Your task to perform on an android device: uninstall "DuckDuckGo Privacy Browser" Image 0: 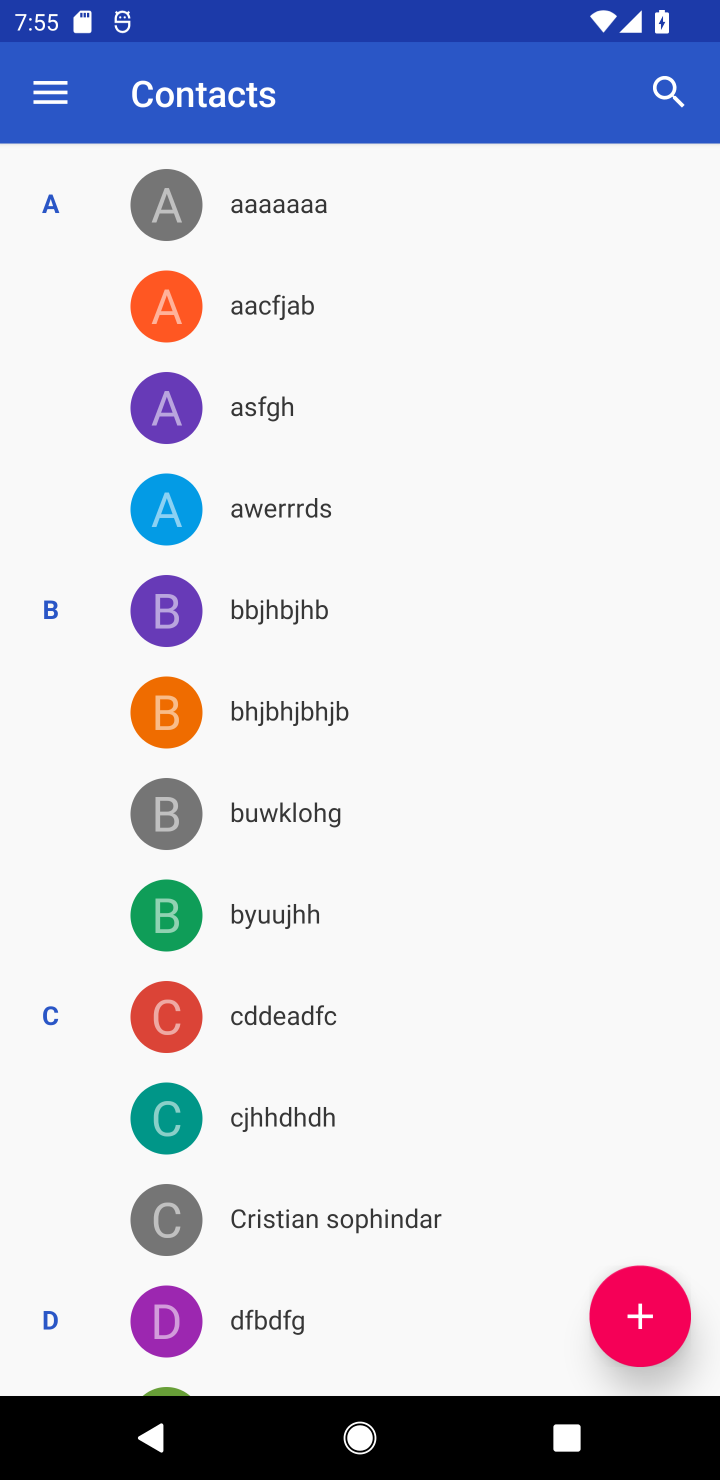
Step 0: press home button
Your task to perform on an android device: uninstall "DuckDuckGo Privacy Browser" Image 1: 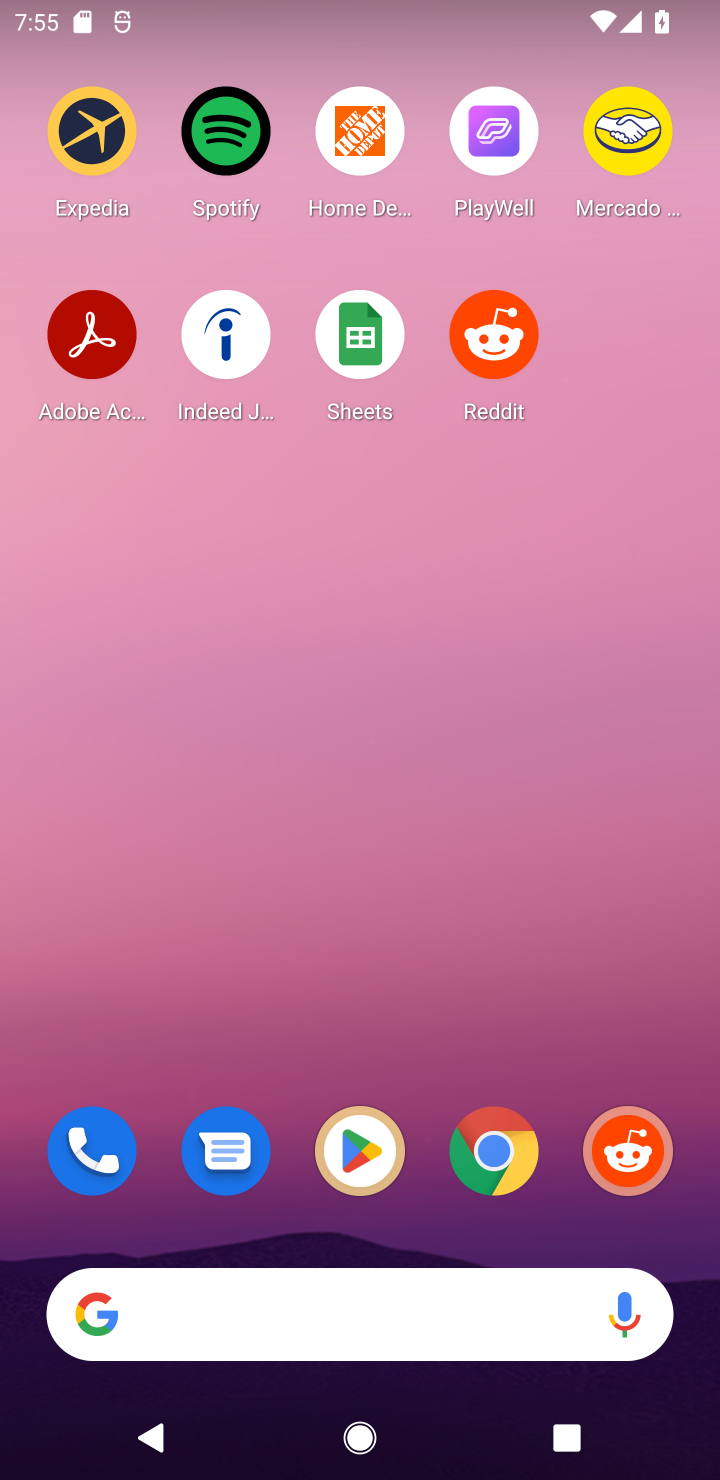
Step 1: click (353, 1138)
Your task to perform on an android device: uninstall "DuckDuckGo Privacy Browser" Image 2: 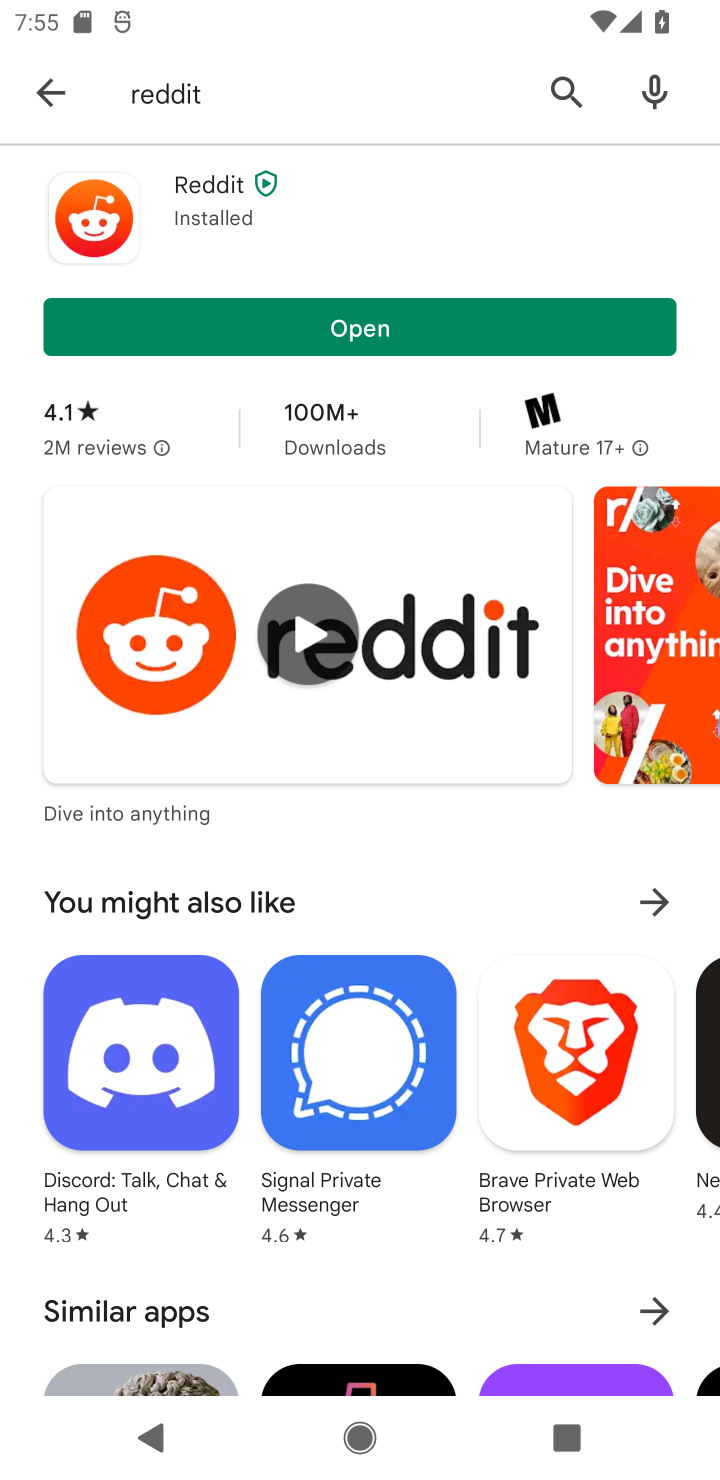
Step 2: click (563, 86)
Your task to perform on an android device: uninstall "DuckDuckGo Privacy Browser" Image 3: 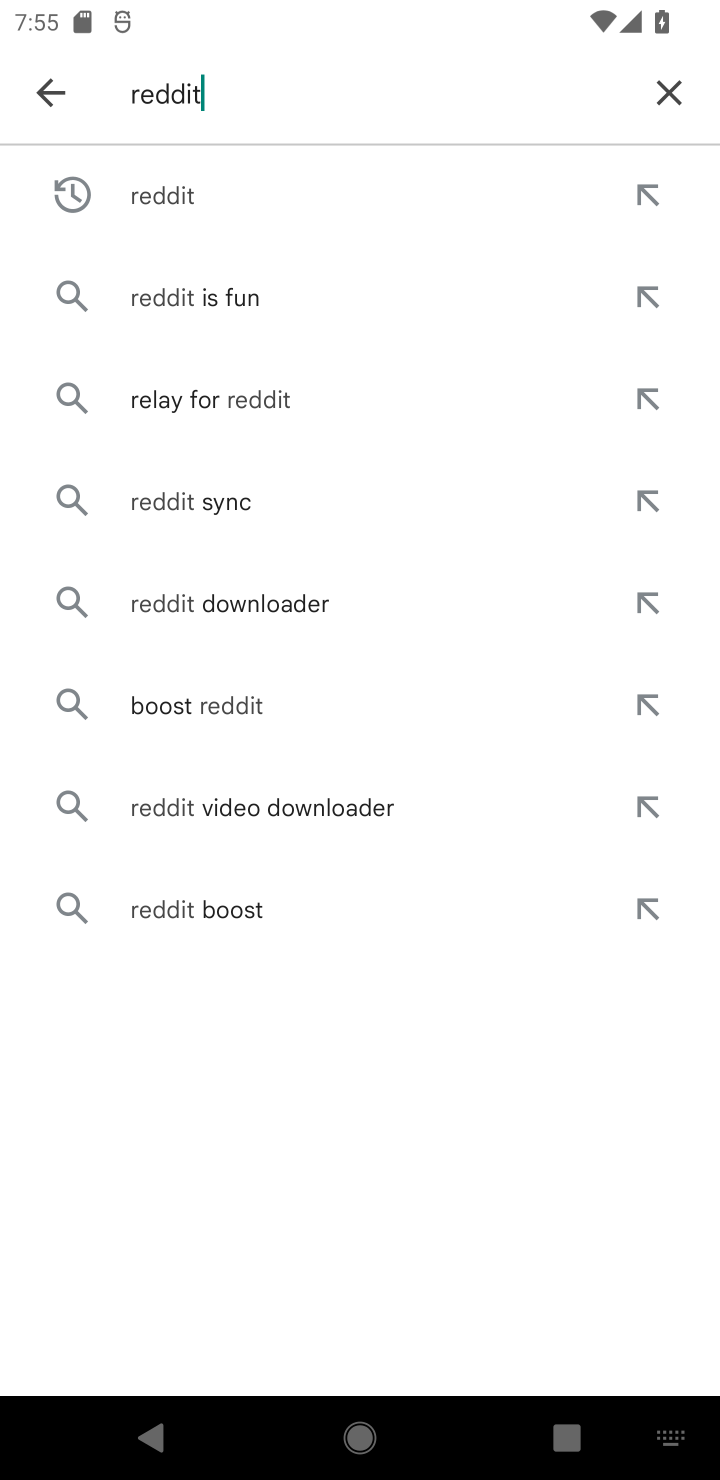
Step 3: click (659, 86)
Your task to perform on an android device: uninstall "DuckDuckGo Privacy Browser" Image 4: 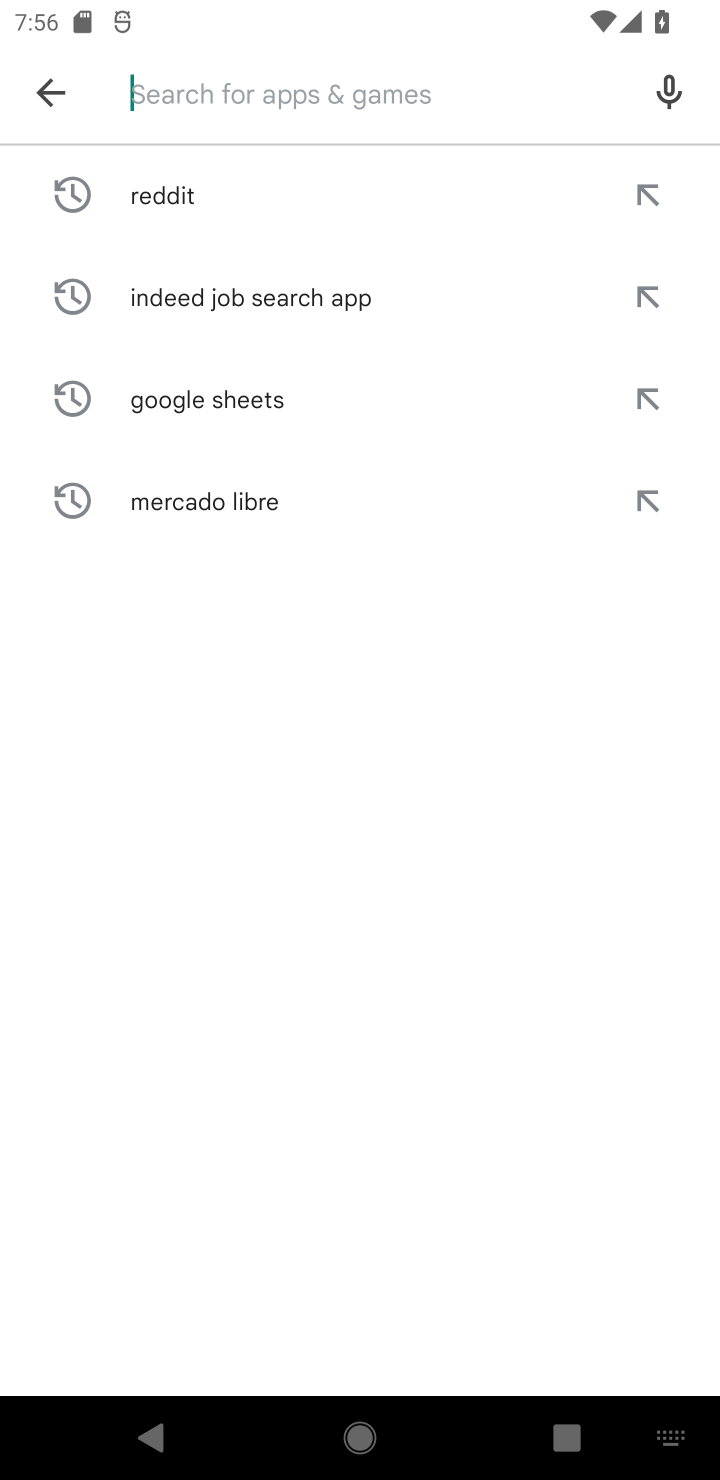
Step 4: type "DuckDuckGo Privacy Browser"
Your task to perform on an android device: uninstall "DuckDuckGo Privacy Browser" Image 5: 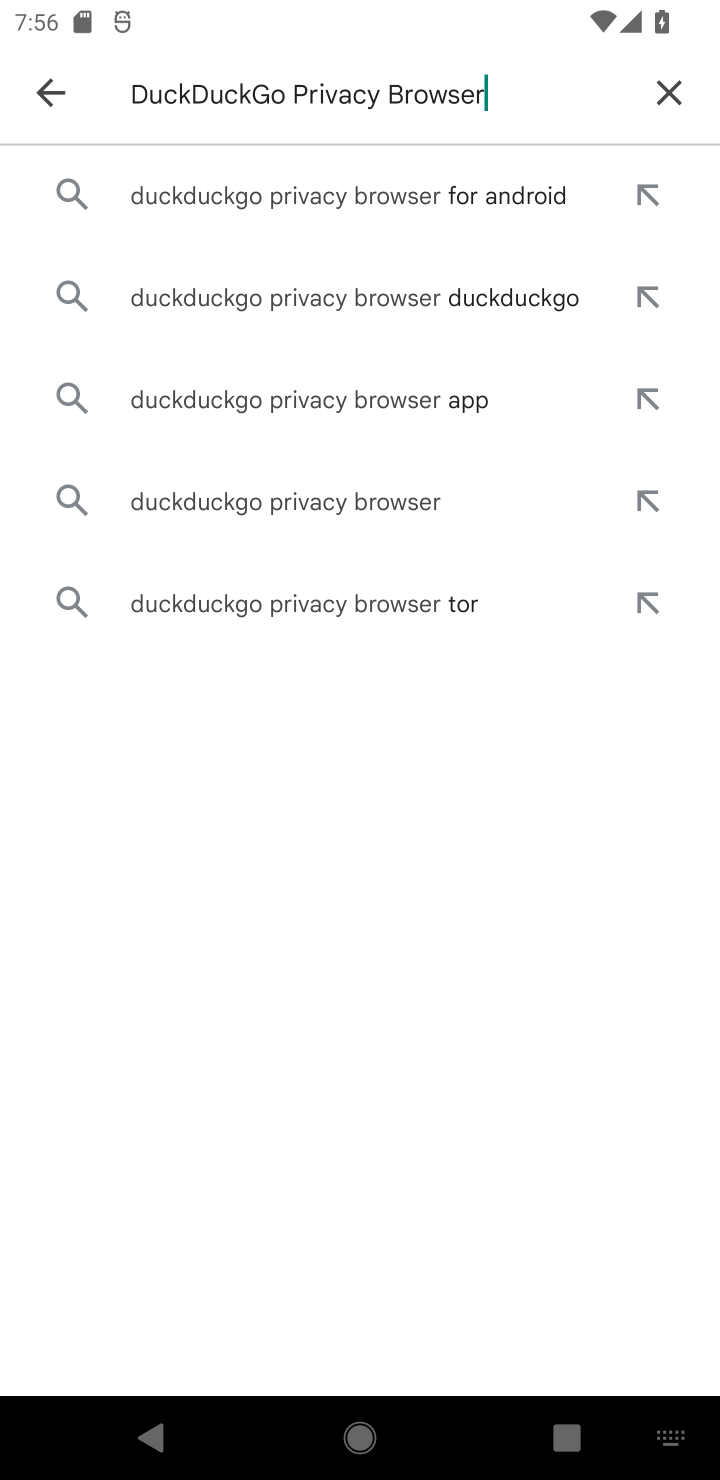
Step 5: click (230, 201)
Your task to perform on an android device: uninstall "DuckDuckGo Privacy Browser" Image 6: 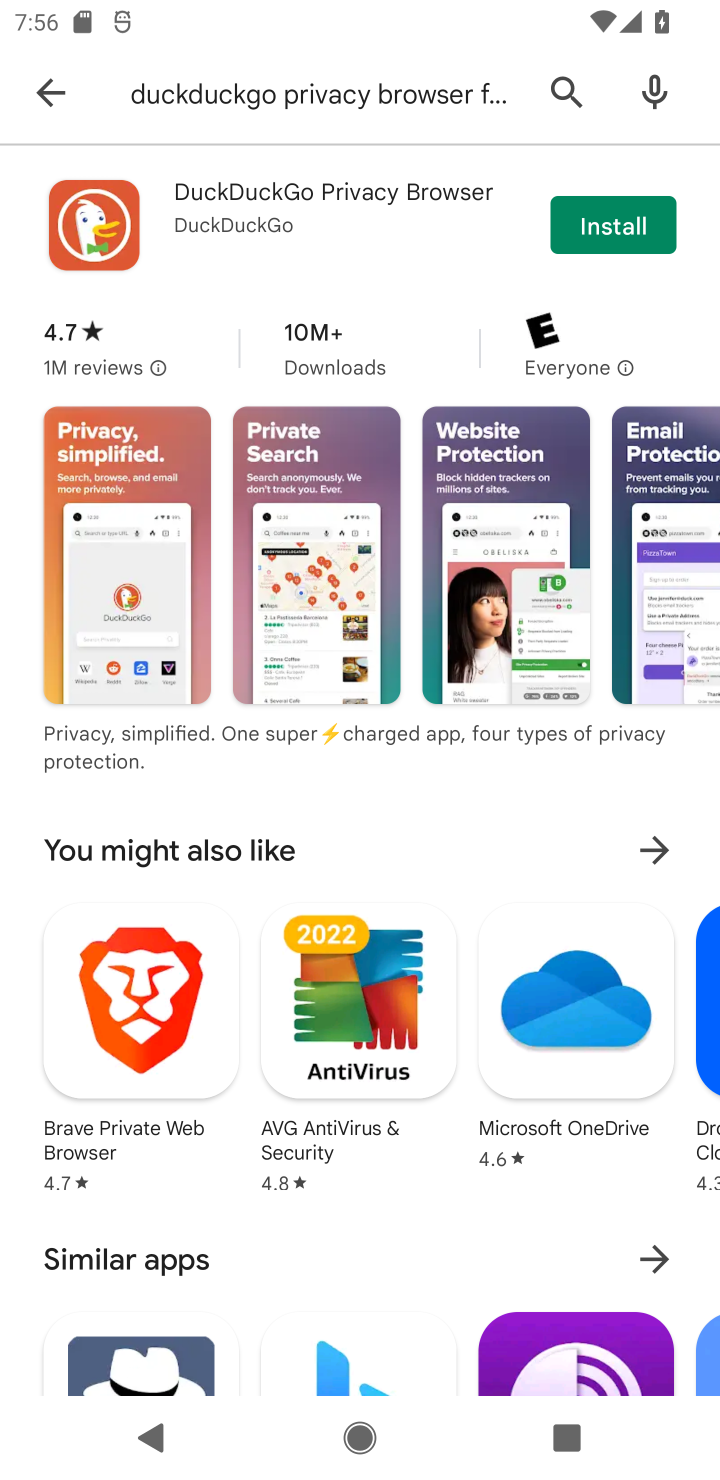
Step 6: task complete